Your task to perform on an android device: open app "Spotify: Music and Podcasts" (install if not already installed) and go to login screen Image 0: 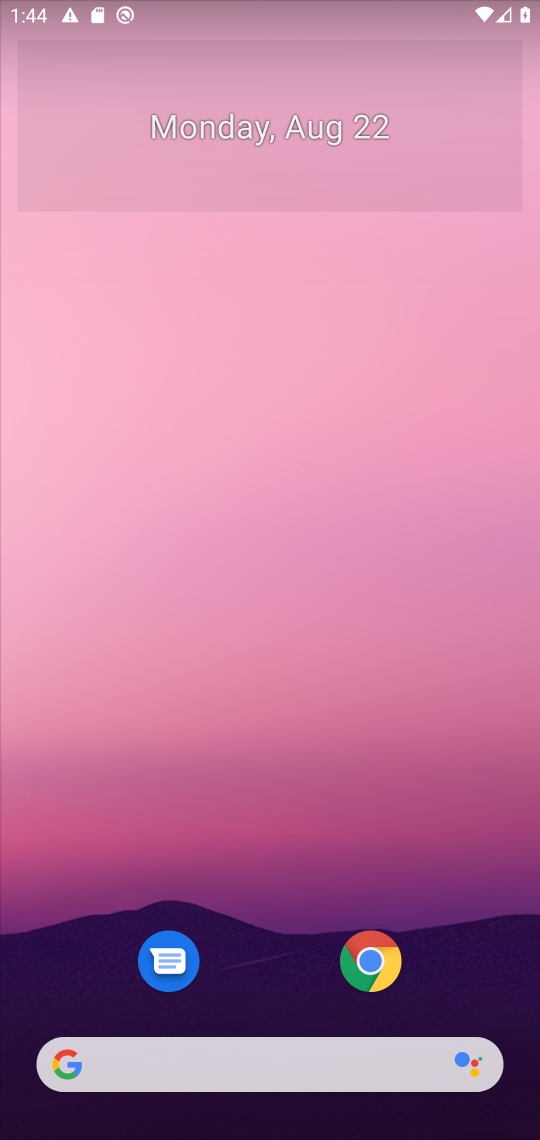
Step 0: press home button
Your task to perform on an android device: open app "Spotify: Music and Podcasts" (install if not already installed) and go to login screen Image 1: 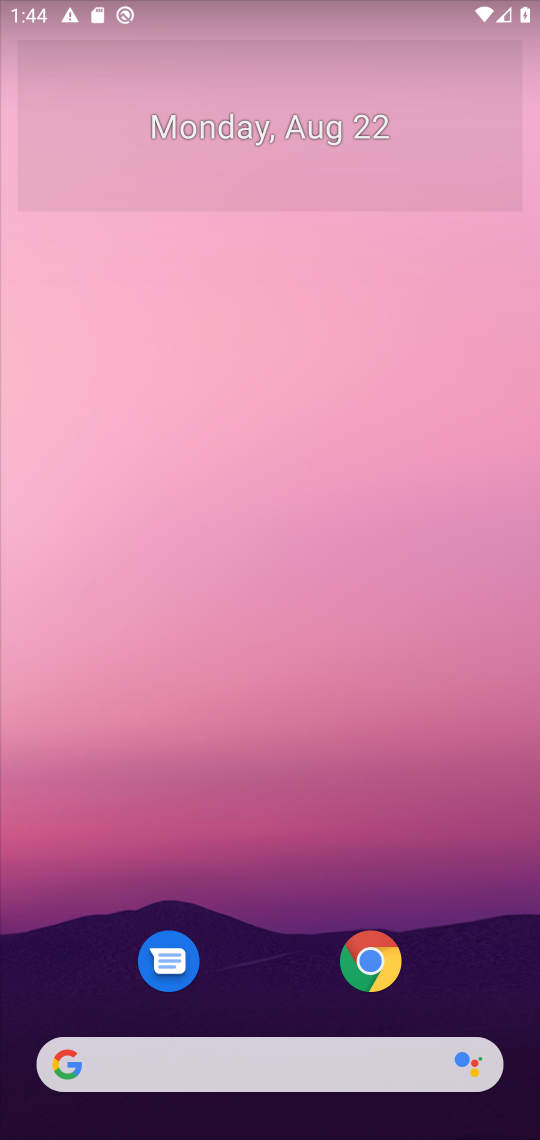
Step 1: drag from (447, 927) to (459, 194)
Your task to perform on an android device: open app "Spotify: Music and Podcasts" (install if not already installed) and go to login screen Image 2: 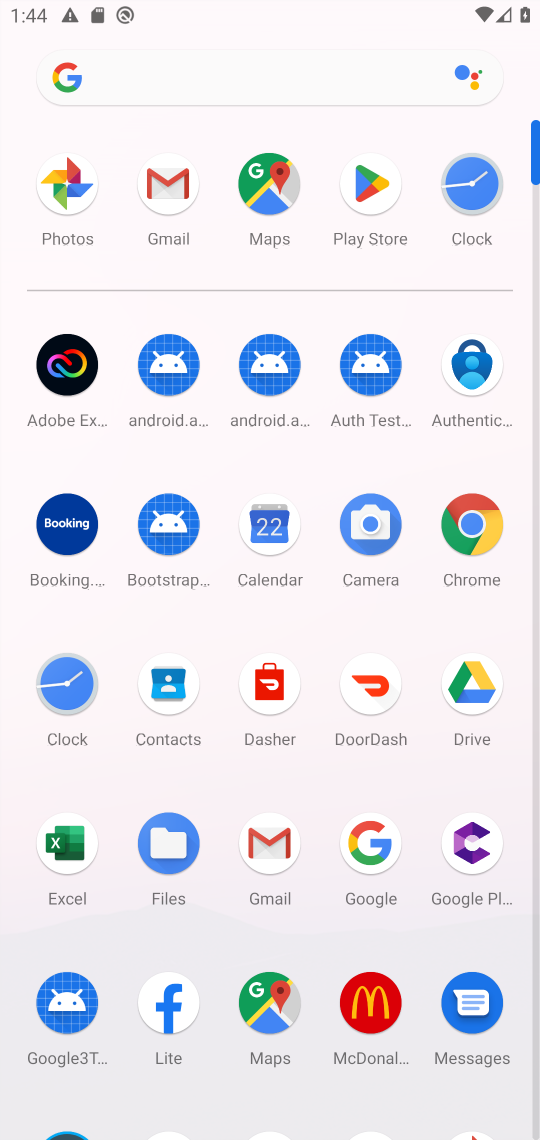
Step 2: click (372, 191)
Your task to perform on an android device: open app "Spotify: Music and Podcasts" (install if not already installed) and go to login screen Image 3: 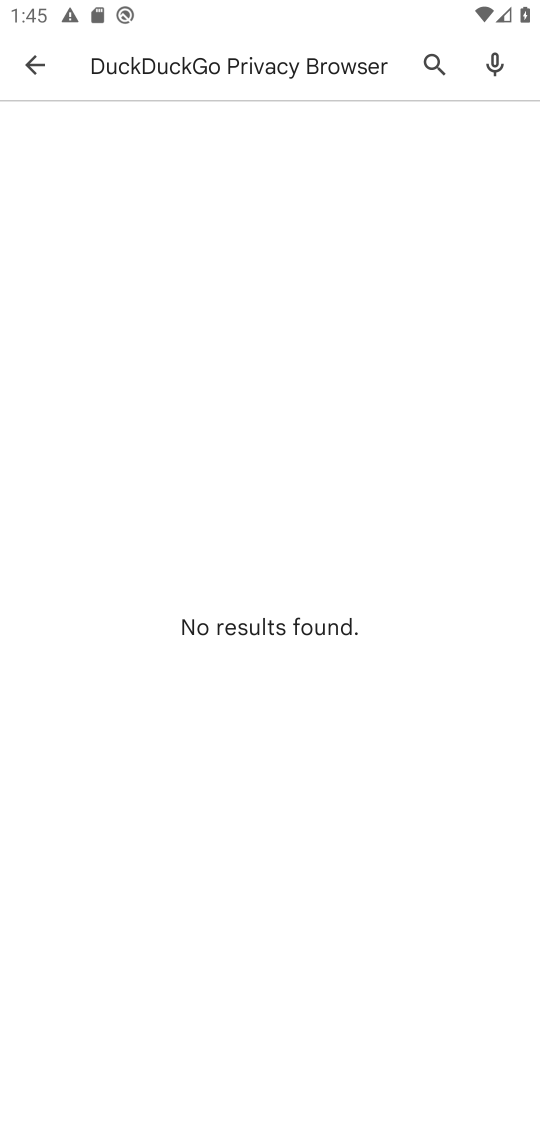
Step 3: press back button
Your task to perform on an android device: open app "Spotify: Music and Podcasts" (install if not already installed) and go to login screen Image 4: 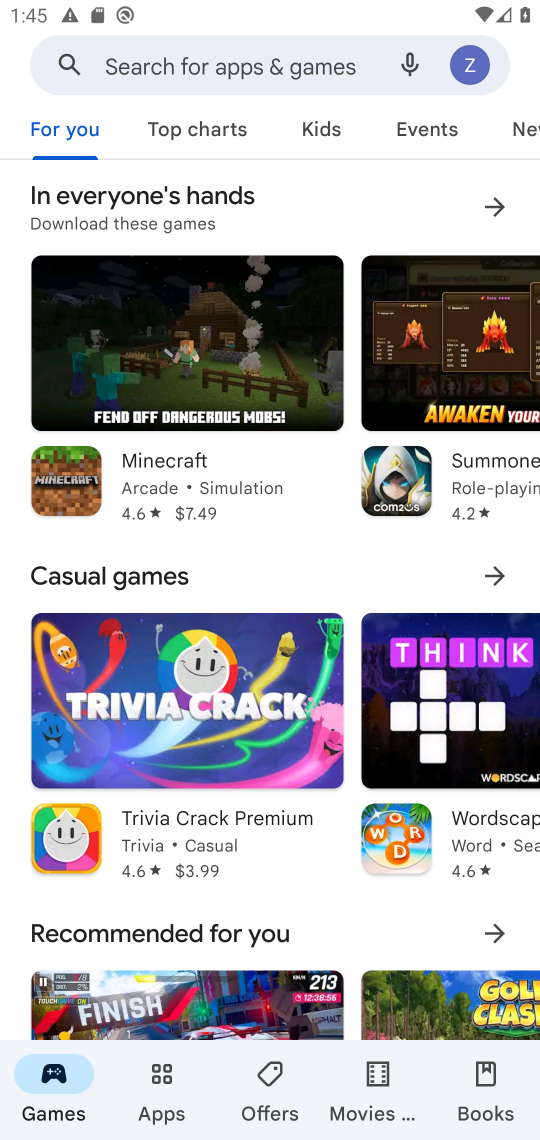
Step 4: click (297, 64)
Your task to perform on an android device: open app "Spotify: Music and Podcasts" (install if not already installed) and go to login screen Image 5: 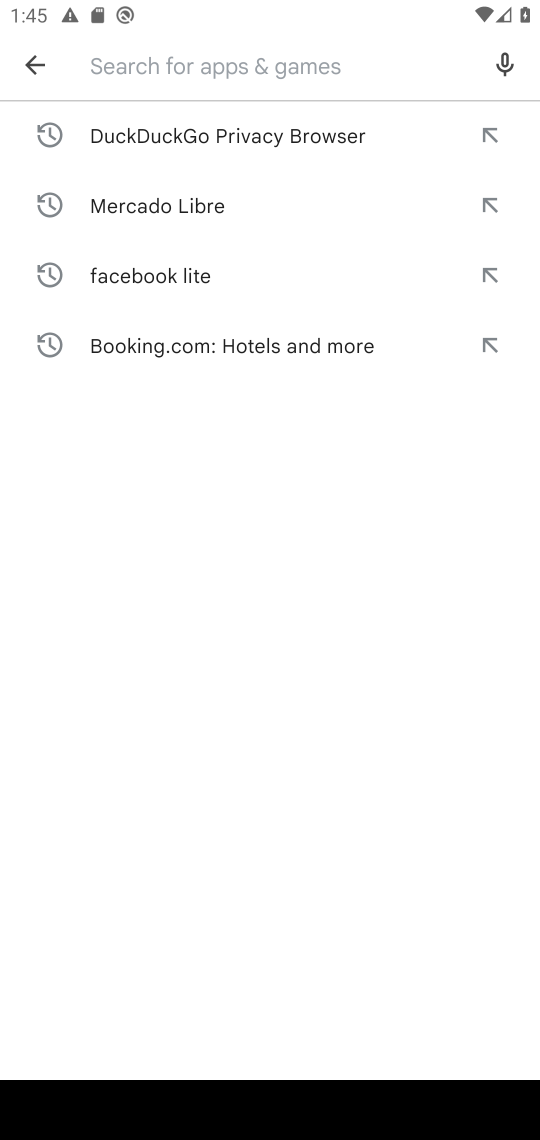
Step 5: press enter
Your task to perform on an android device: open app "Spotify: Music and Podcasts" (install if not already installed) and go to login screen Image 6: 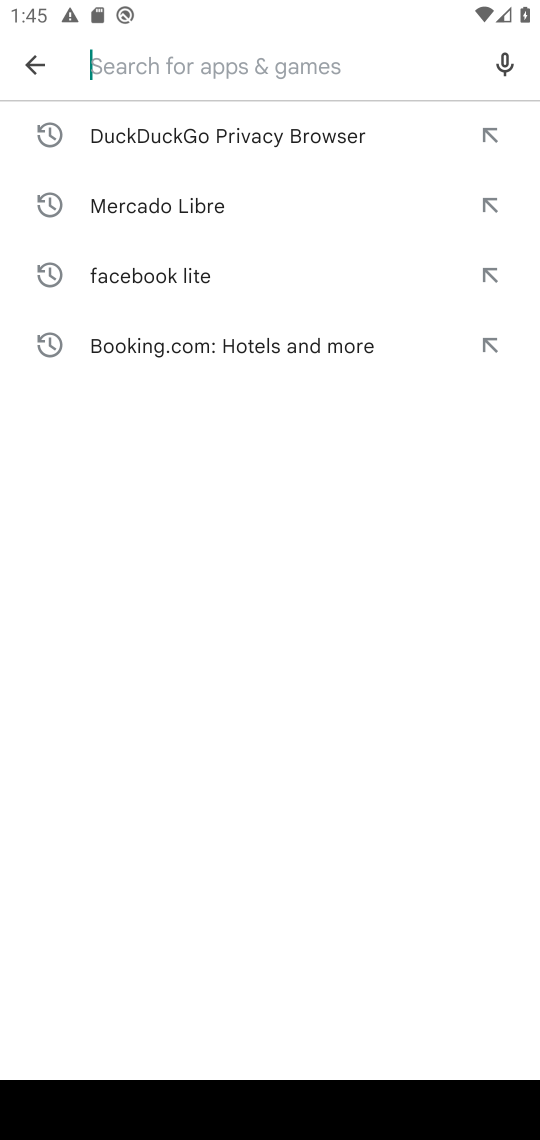
Step 6: type "Spotify: Music and Podcasts"
Your task to perform on an android device: open app "Spotify: Music and Podcasts" (install if not already installed) and go to login screen Image 7: 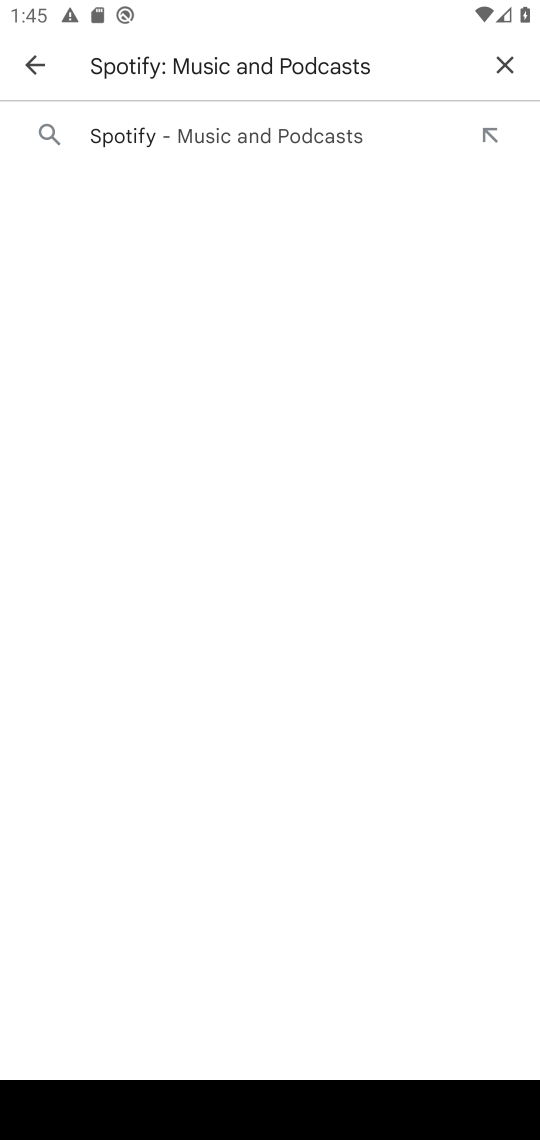
Step 7: click (306, 131)
Your task to perform on an android device: open app "Spotify: Music and Podcasts" (install if not already installed) and go to login screen Image 8: 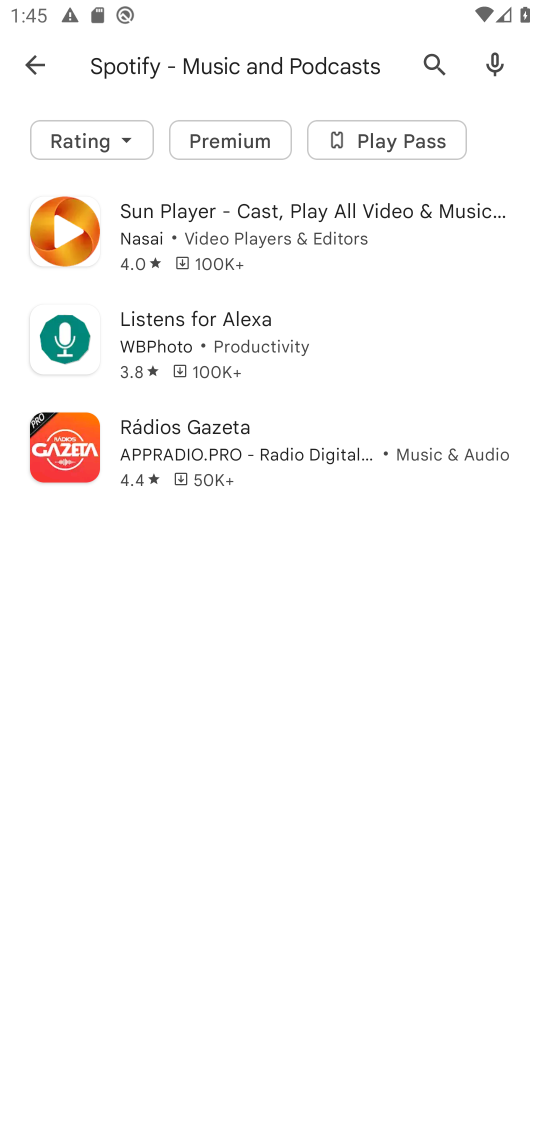
Step 8: task complete